Your task to perform on an android device: move an email to a new category in the gmail app Image 0: 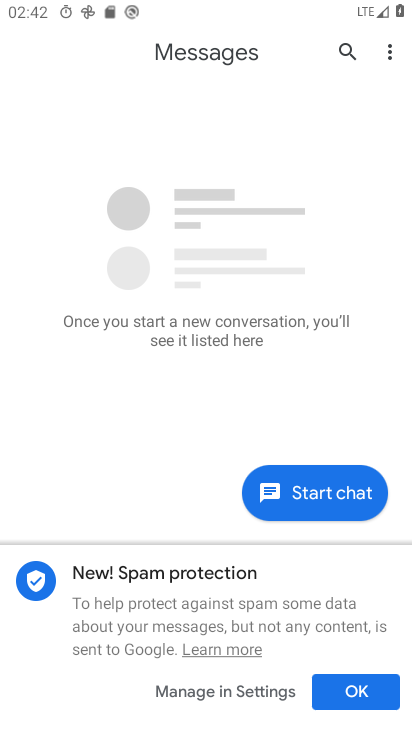
Step 0: press home button
Your task to perform on an android device: move an email to a new category in the gmail app Image 1: 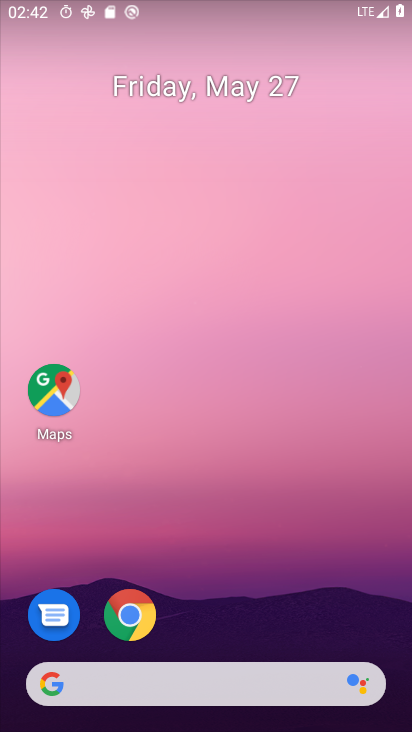
Step 1: drag from (329, 618) to (362, 155)
Your task to perform on an android device: move an email to a new category in the gmail app Image 2: 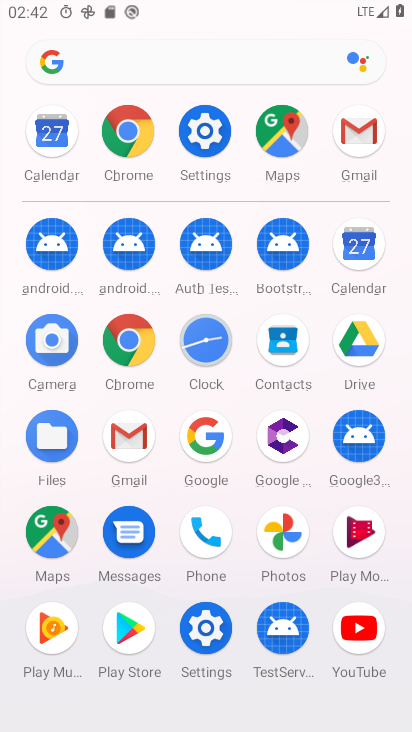
Step 2: click (136, 444)
Your task to perform on an android device: move an email to a new category in the gmail app Image 3: 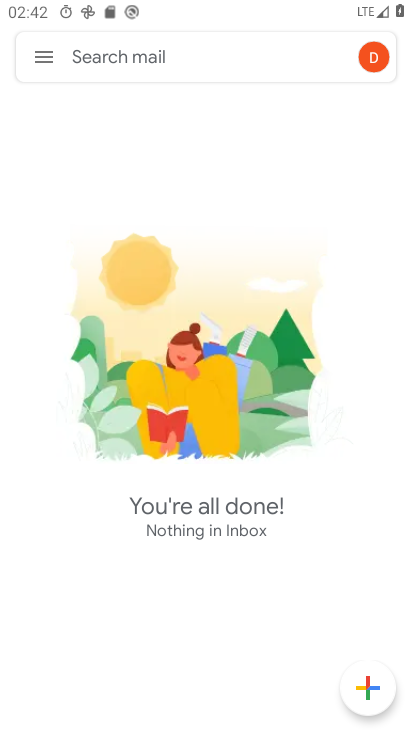
Step 3: task complete